Your task to perform on an android device: move a message to another label in the gmail app Image 0: 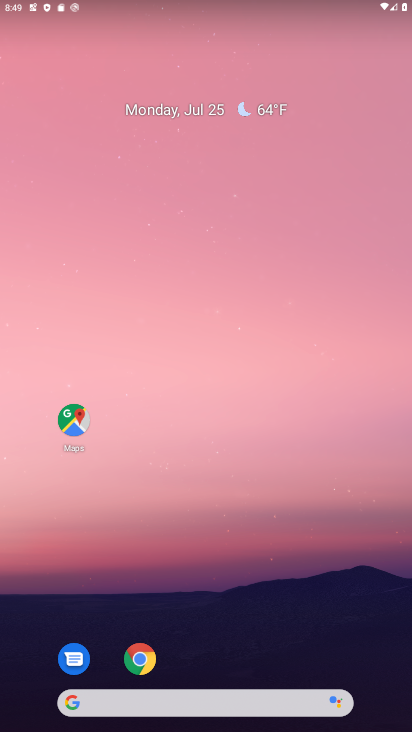
Step 0: drag from (360, 632) to (374, 180)
Your task to perform on an android device: move a message to another label in the gmail app Image 1: 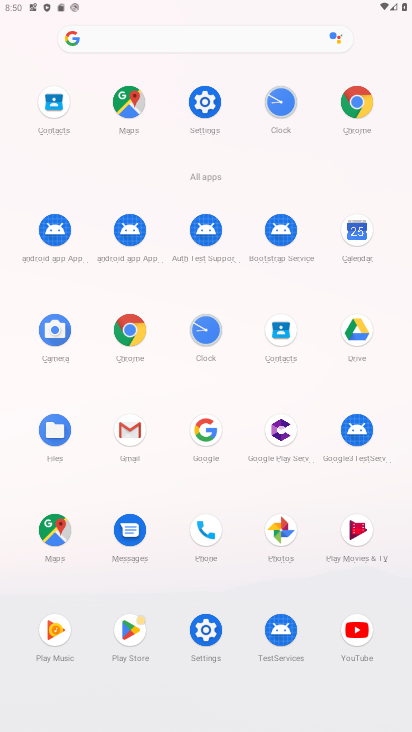
Step 1: click (125, 433)
Your task to perform on an android device: move a message to another label in the gmail app Image 2: 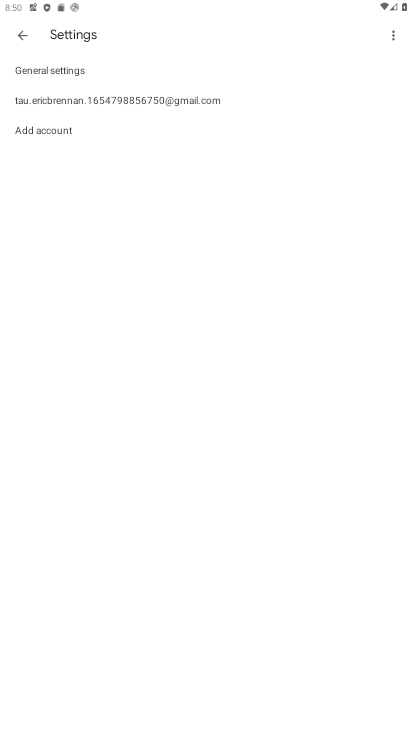
Step 2: press back button
Your task to perform on an android device: move a message to another label in the gmail app Image 3: 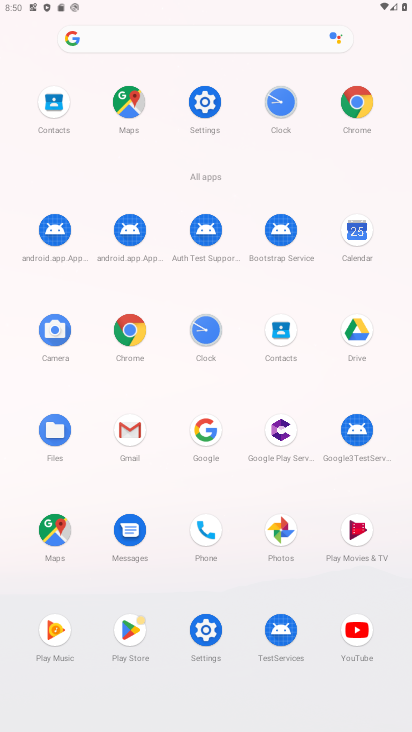
Step 3: click (123, 425)
Your task to perform on an android device: move a message to another label in the gmail app Image 4: 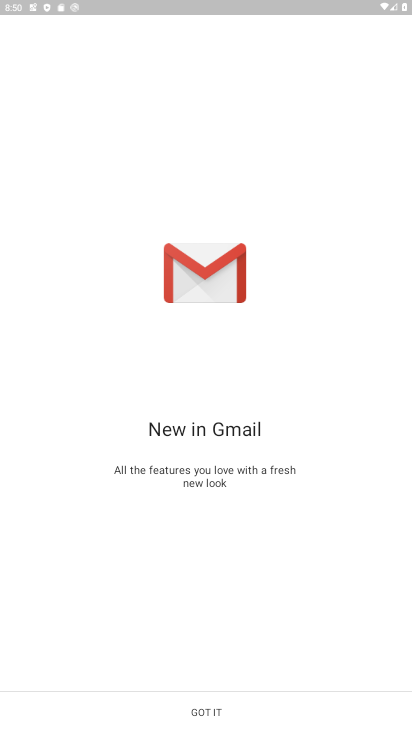
Step 4: click (205, 712)
Your task to perform on an android device: move a message to another label in the gmail app Image 5: 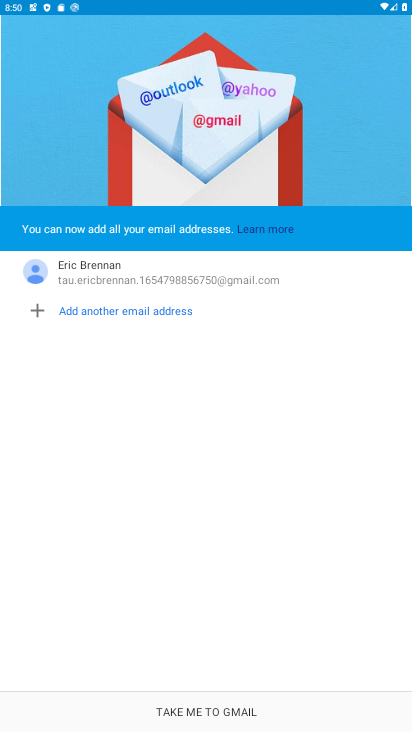
Step 5: click (205, 712)
Your task to perform on an android device: move a message to another label in the gmail app Image 6: 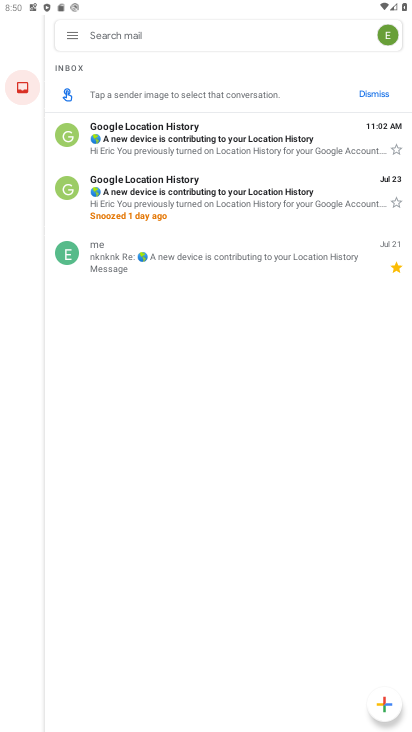
Step 6: click (220, 257)
Your task to perform on an android device: move a message to another label in the gmail app Image 7: 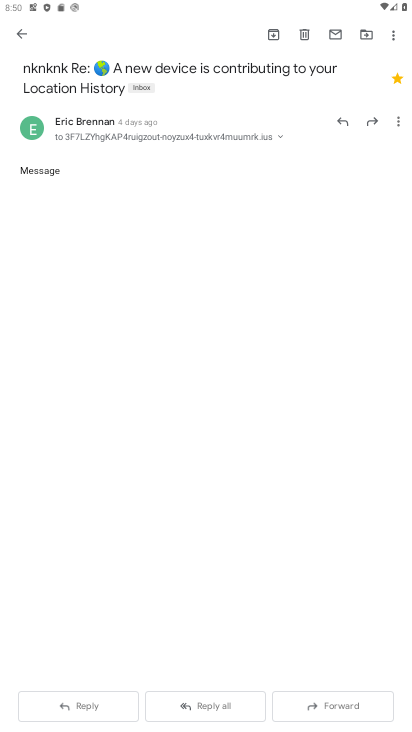
Step 7: click (393, 37)
Your task to perform on an android device: move a message to another label in the gmail app Image 8: 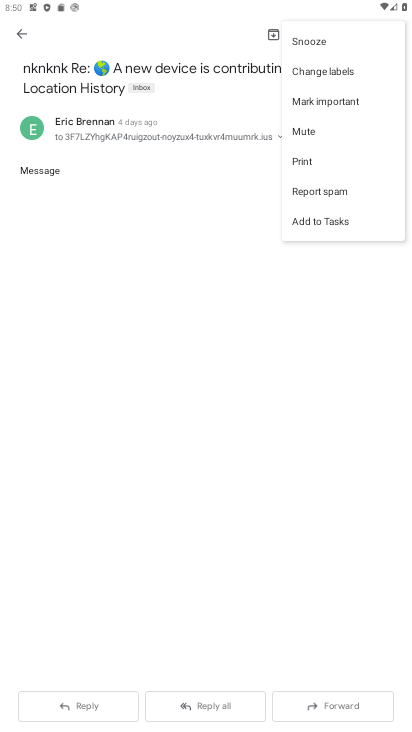
Step 8: click (197, 193)
Your task to perform on an android device: move a message to another label in the gmail app Image 9: 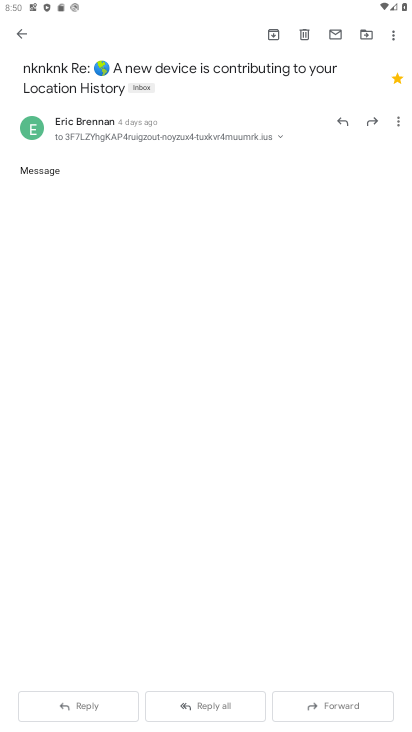
Step 9: click (400, 125)
Your task to perform on an android device: move a message to another label in the gmail app Image 10: 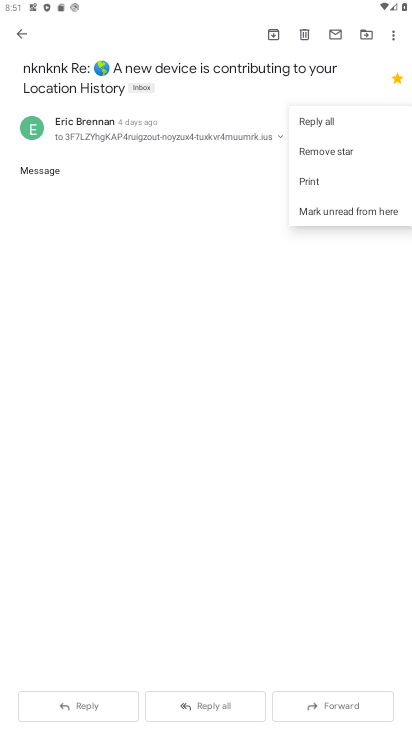
Step 10: click (29, 39)
Your task to perform on an android device: move a message to another label in the gmail app Image 11: 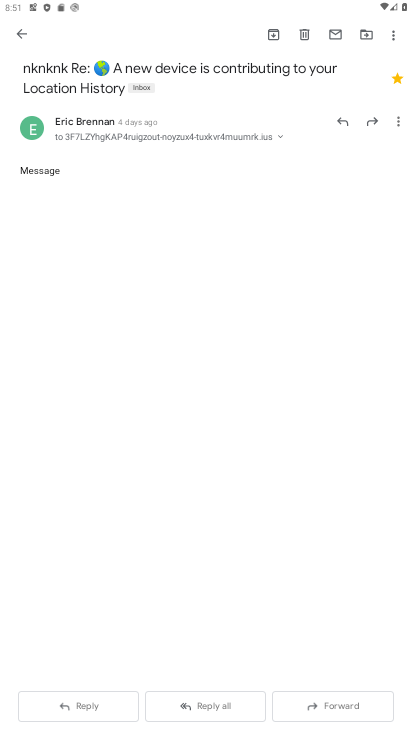
Step 11: click (26, 33)
Your task to perform on an android device: move a message to another label in the gmail app Image 12: 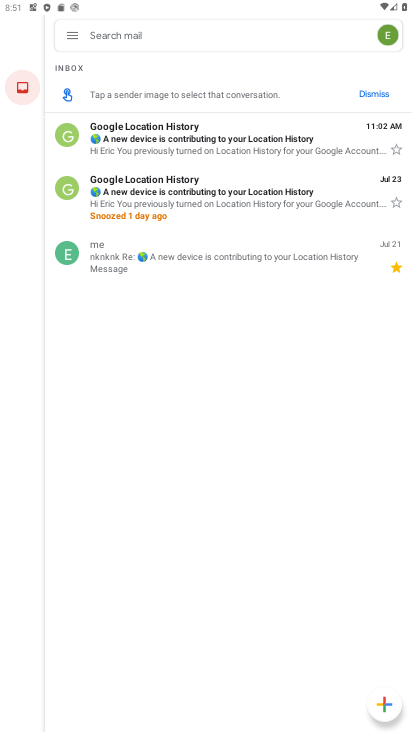
Step 12: click (253, 143)
Your task to perform on an android device: move a message to another label in the gmail app Image 13: 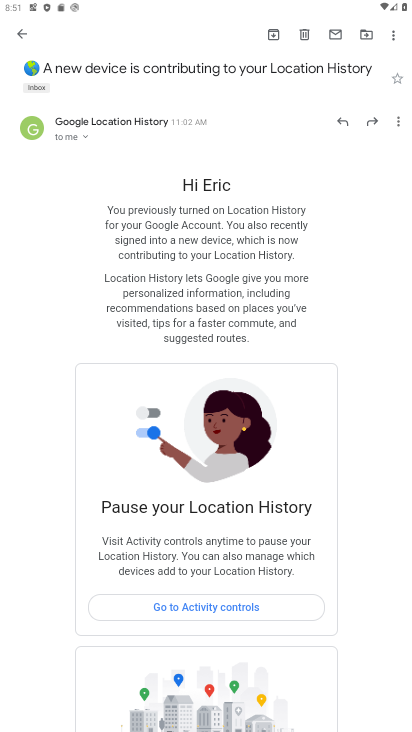
Step 13: click (396, 36)
Your task to perform on an android device: move a message to another label in the gmail app Image 14: 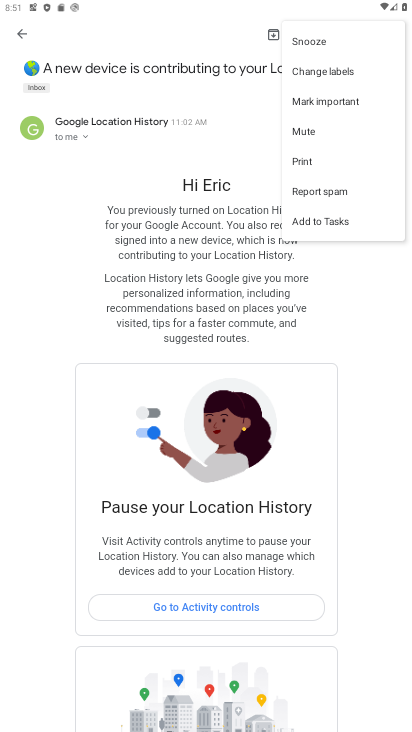
Step 14: task complete